Your task to perform on an android device: Search for pizza restaurants on Maps Image 0: 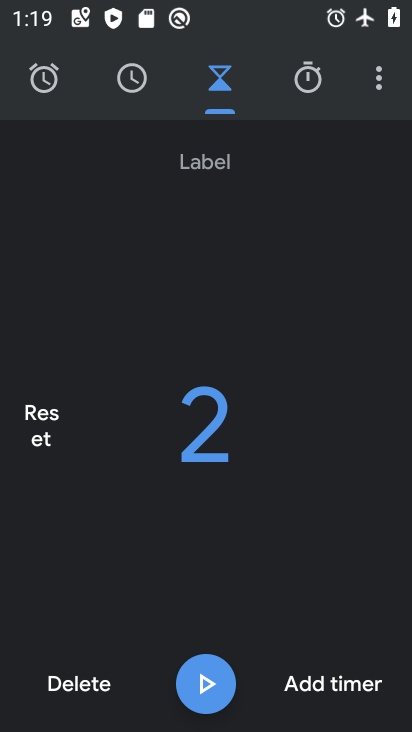
Step 0: press home button
Your task to perform on an android device: Search for pizza restaurants on Maps Image 1: 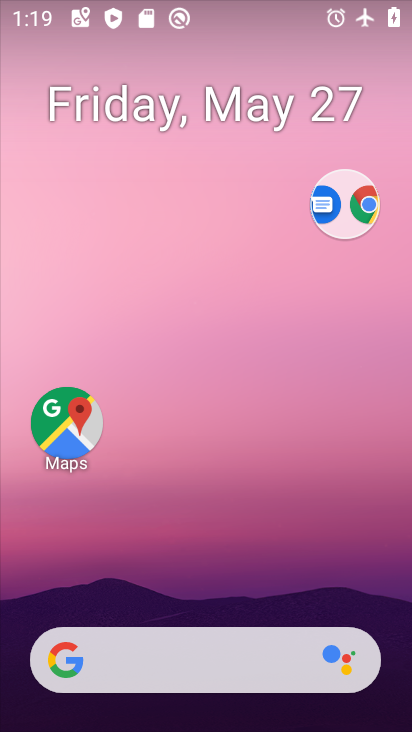
Step 1: drag from (239, 686) to (250, 206)
Your task to perform on an android device: Search for pizza restaurants on Maps Image 2: 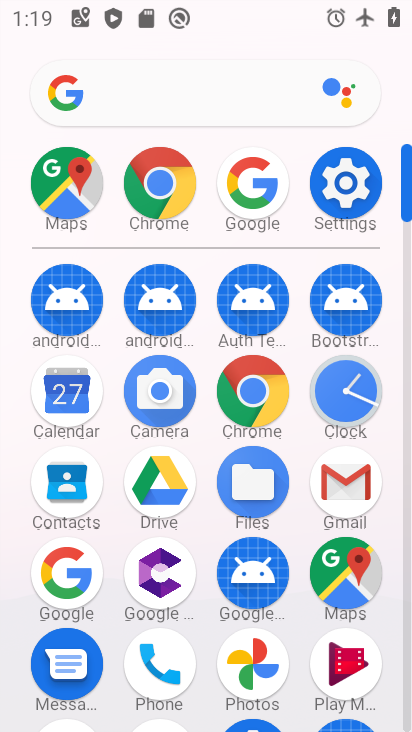
Step 2: click (347, 572)
Your task to perform on an android device: Search for pizza restaurants on Maps Image 3: 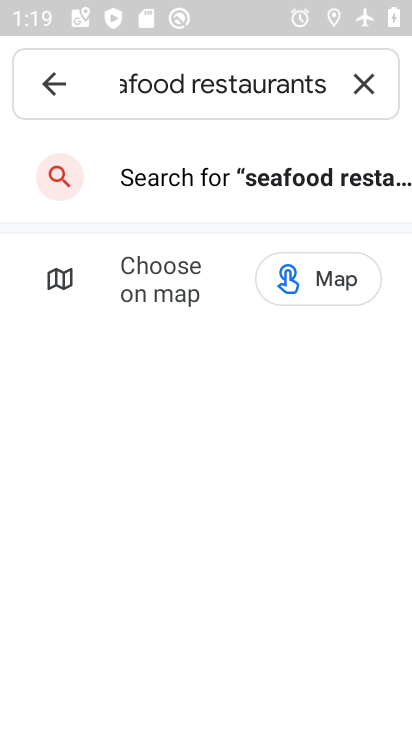
Step 3: click (355, 90)
Your task to perform on an android device: Search for pizza restaurants on Maps Image 4: 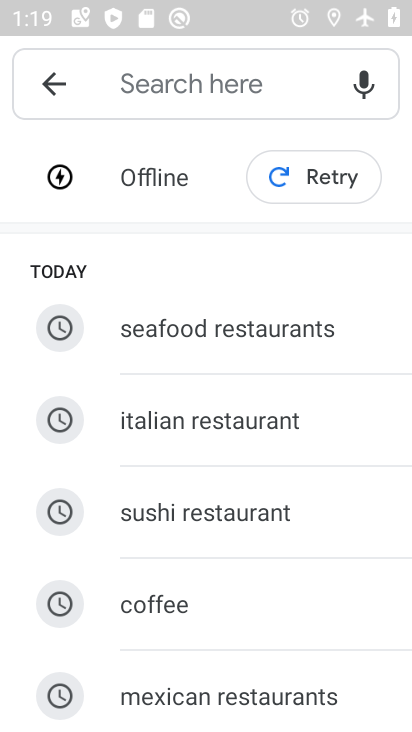
Step 4: drag from (212, 531) to (204, 232)
Your task to perform on an android device: Search for pizza restaurants on Maps Image 5: 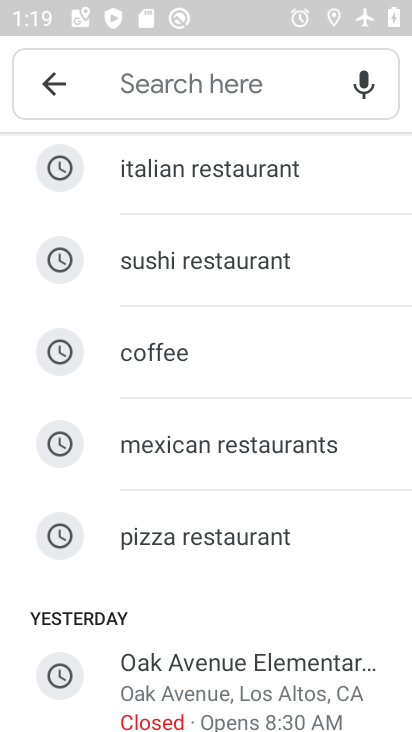
Step 5: click (213, 530)
Your task to perform on an android device: Search for pizza restaurants on Maps Image 6: 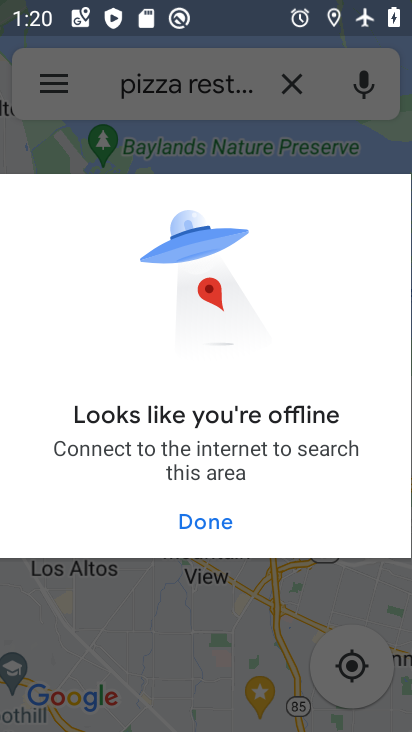
Step 6: task complete